Your task to perform on an android device: clear history in the chrome app Image 0: 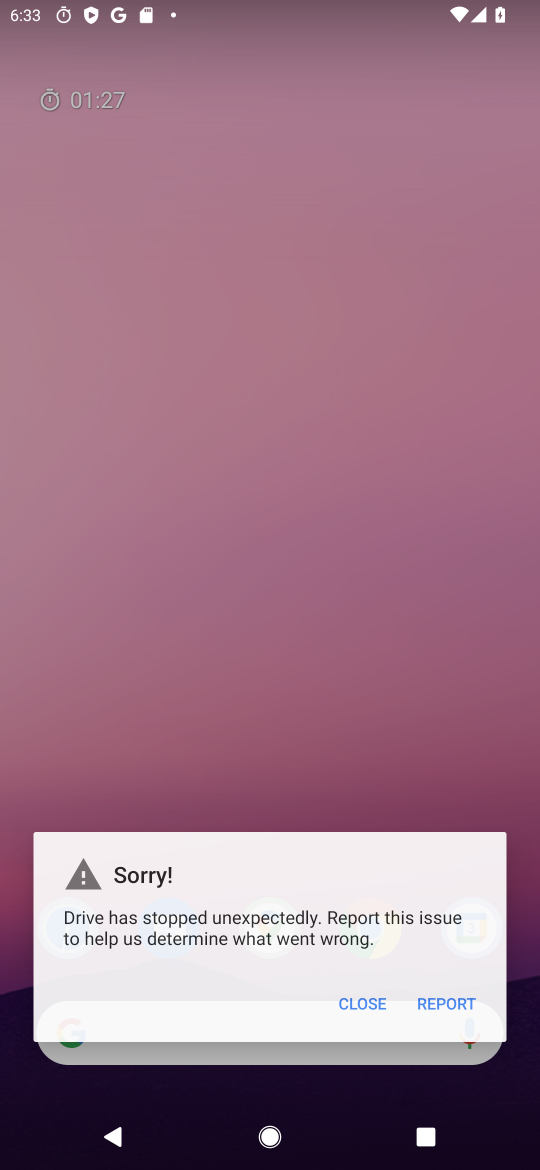
Step 0: press home button
Your task to perform on an android device: clear history in the chrome app Image 1: 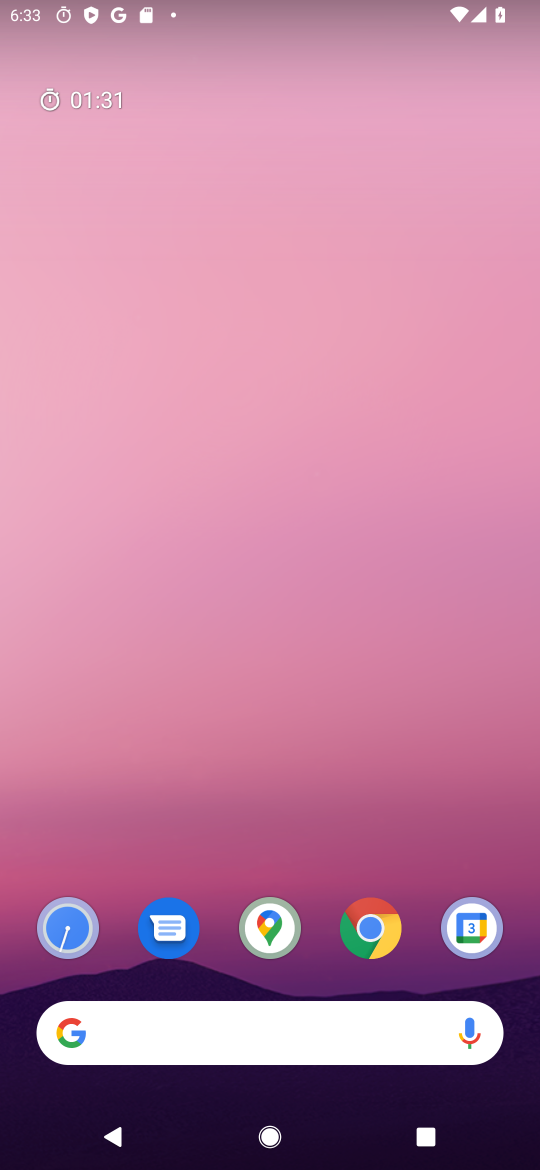
Step 1: drag from (318, 841) to (350, 212)
Your task to perform on an android device: clear history in the chrome app Image 2: 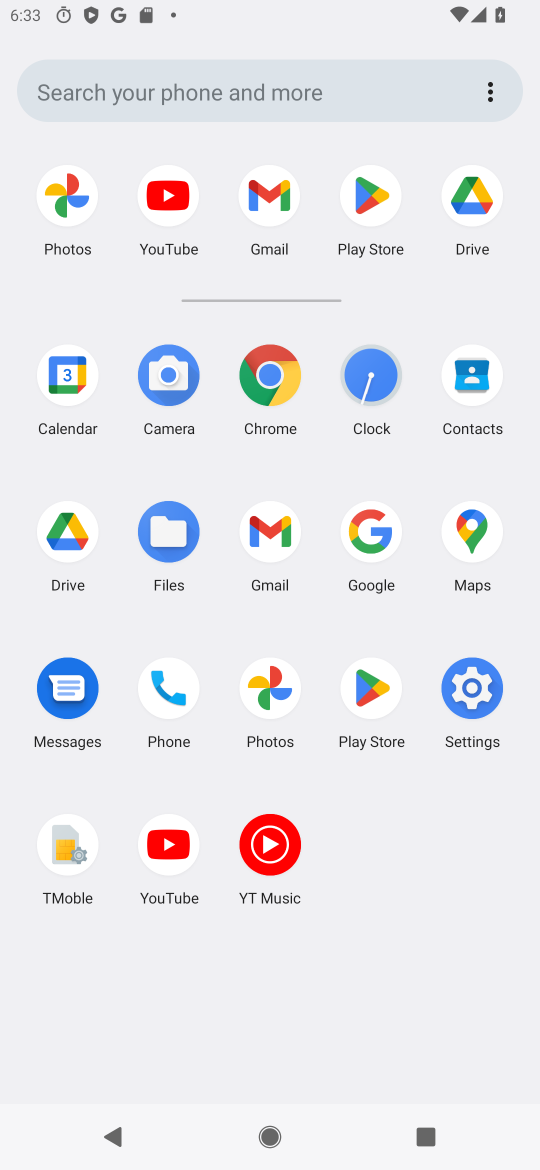
Step 2: click (272, 368)
Your task to perform on an android device: clear history in the chrome app Image 3: 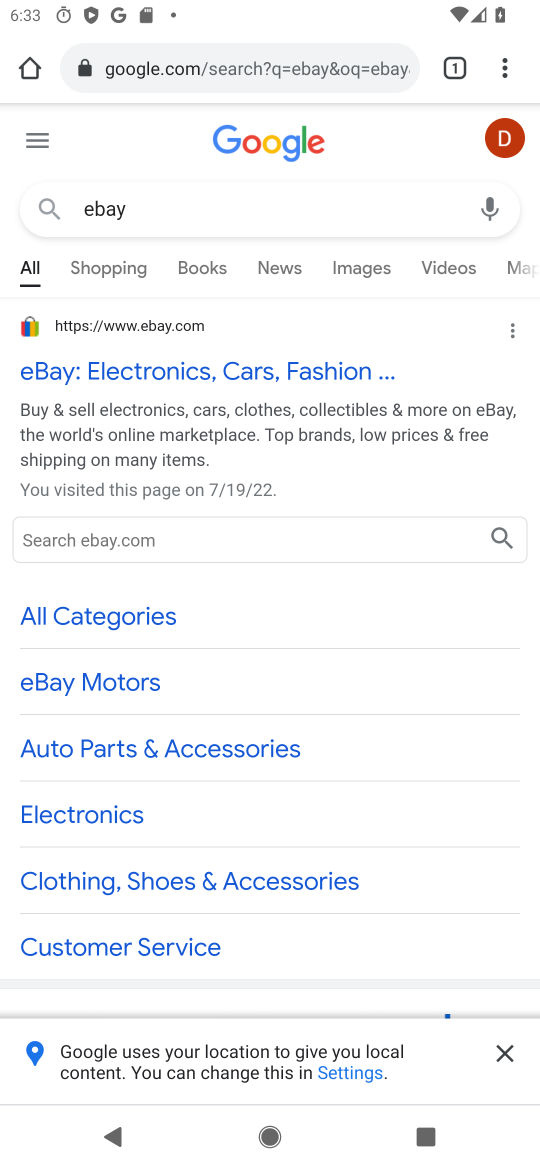
Step 3: click (506, 72)
Your task to perform on an android device: clear history in the chrome app Image 4: 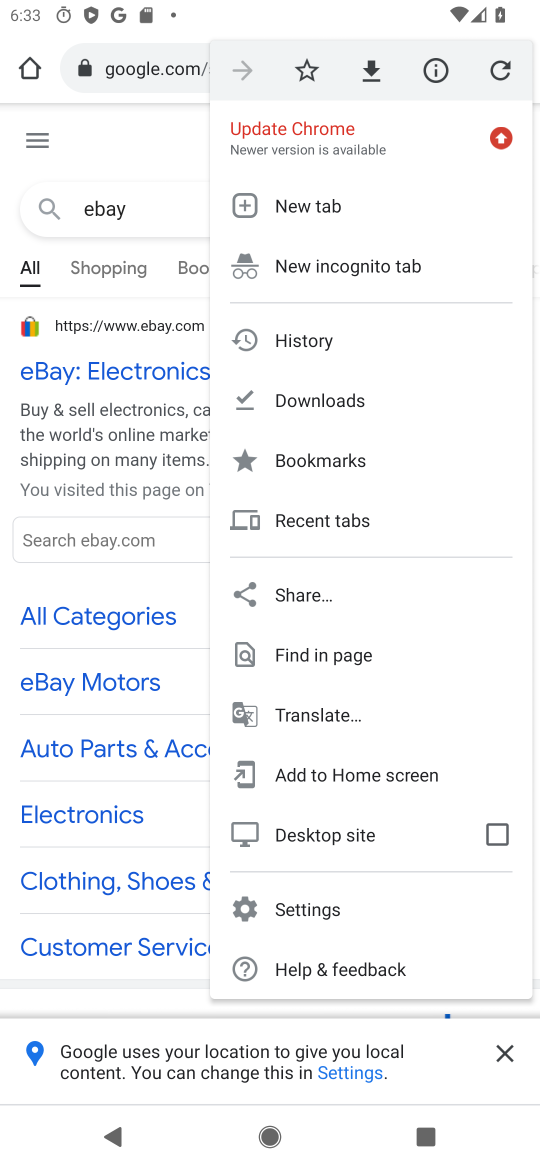
Step 4: click (339, 339)
Your task to perform on an android device: clear history in the chrome app Image 5: 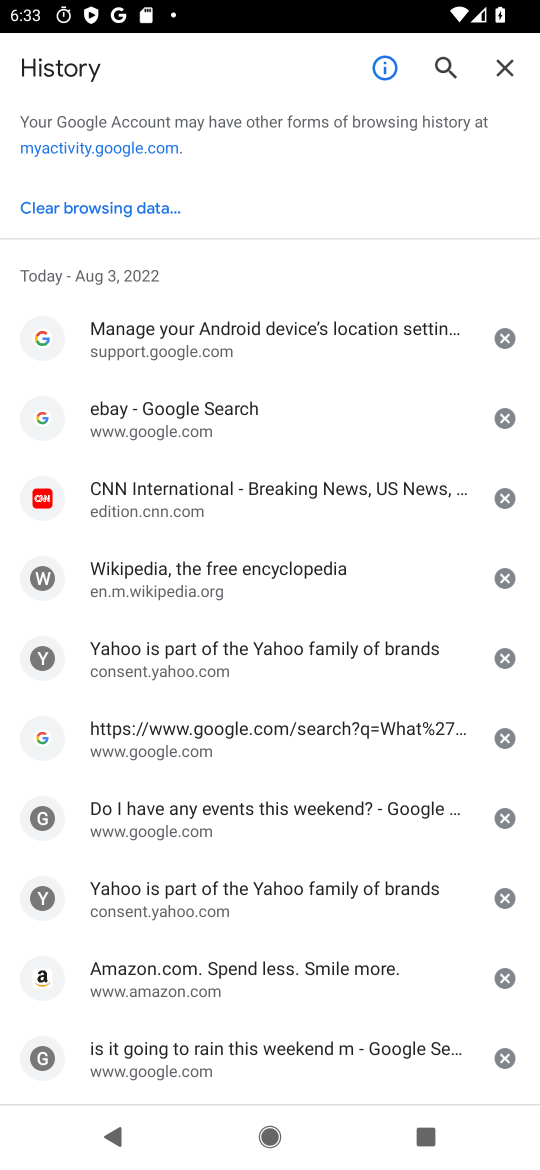
Step 5: click (131, 209)
Your task to perform on an android device: clear history in the chrome app Image 6: 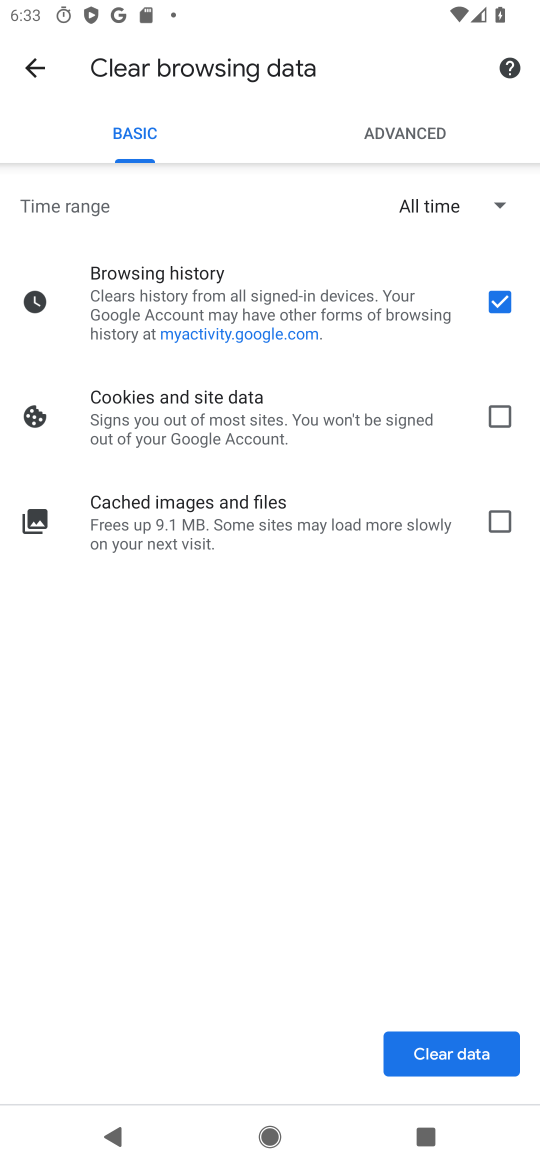
Step 6: click (497, 513)
Your task to perform on an android device: clear history in the chrome app Image 7: 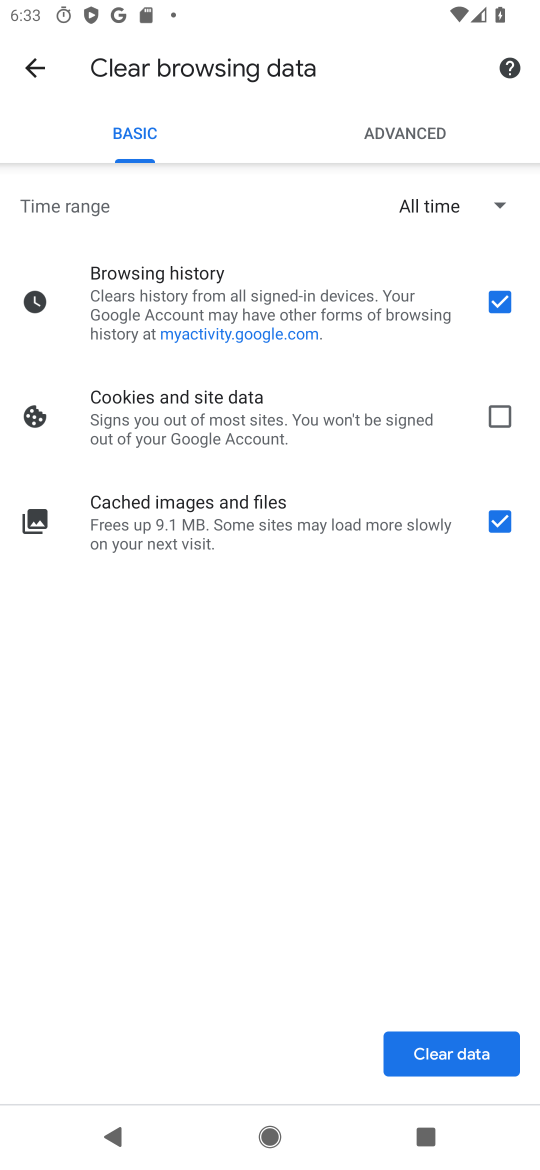
Step 7: click (501, 415)
Your task to perform on an android device: clear history in the chrome app Image 8: 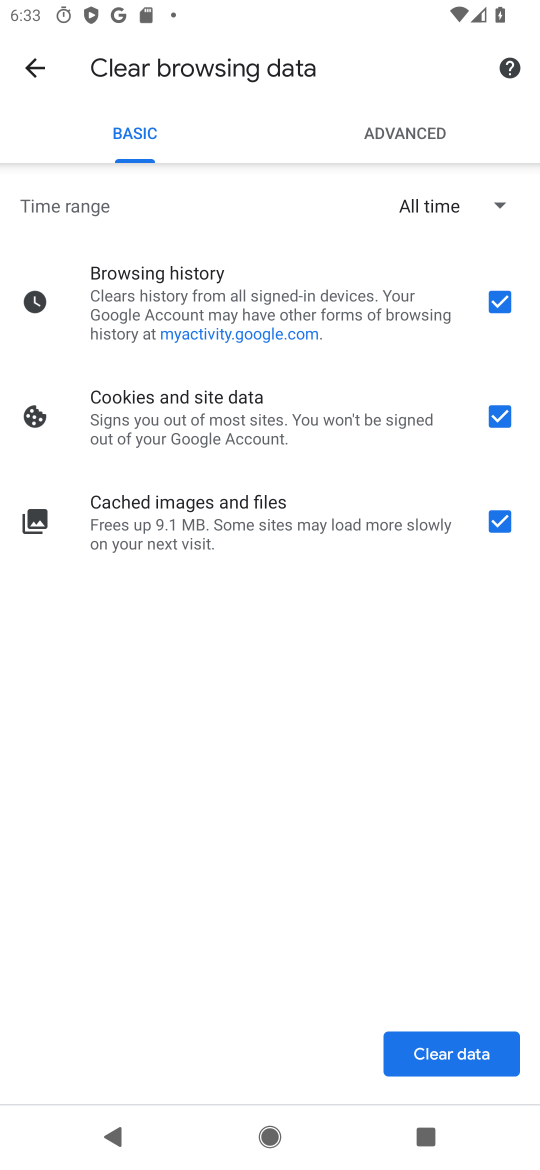
Step 8: click (459, 1044)
Your task to perform on an android device: clear history in the chrome app Image 9: 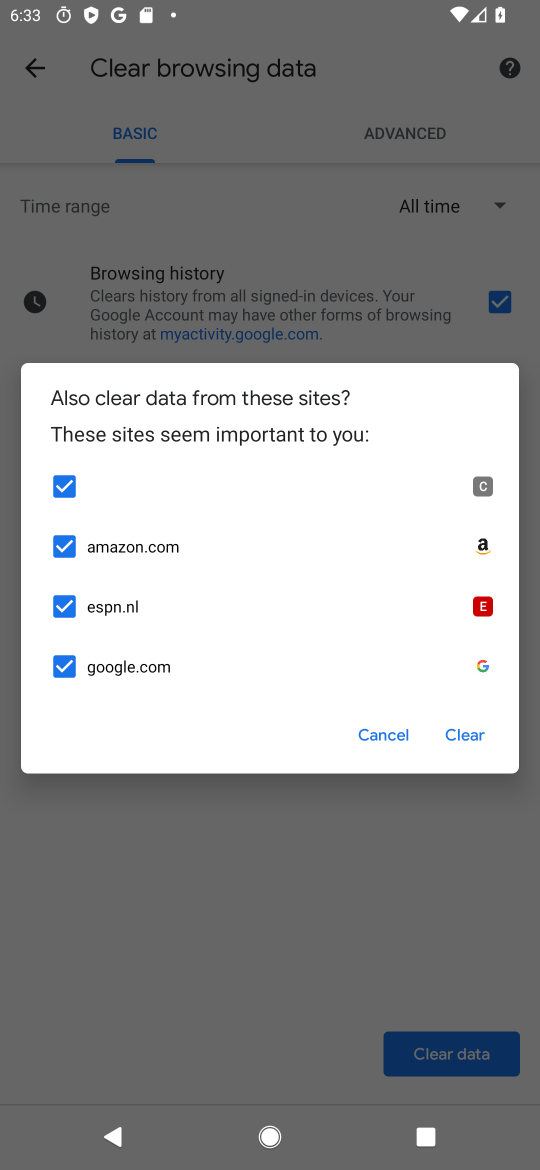
Step 9: click (472, 734)
Your task to perform on an android device: clear history in the chrome app Image 10: 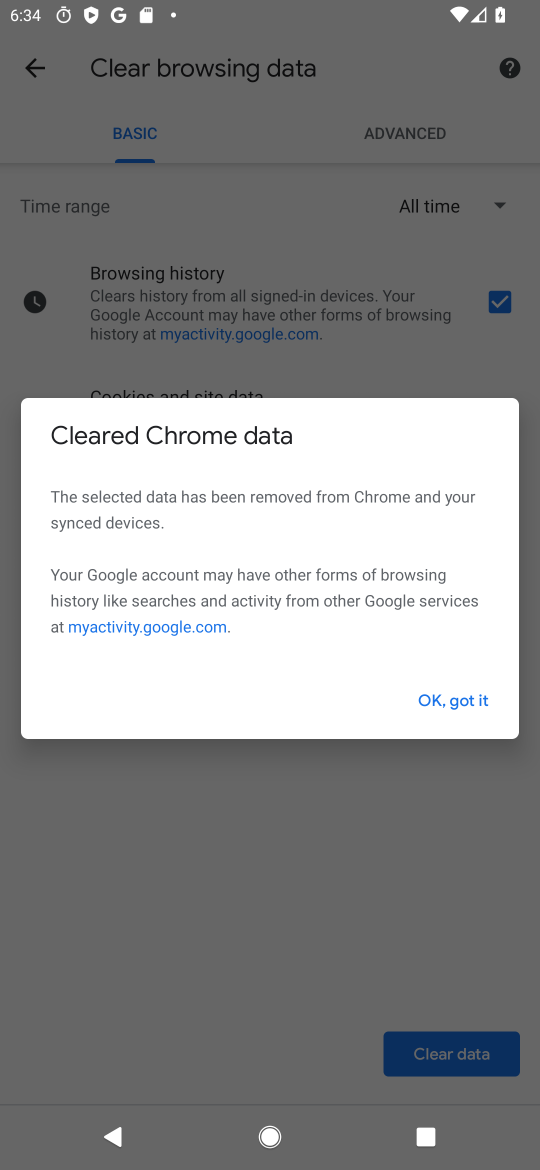
Step 10: click (475, 691)
Your task to perform on an android device: clear history in the chrome app Image 11: 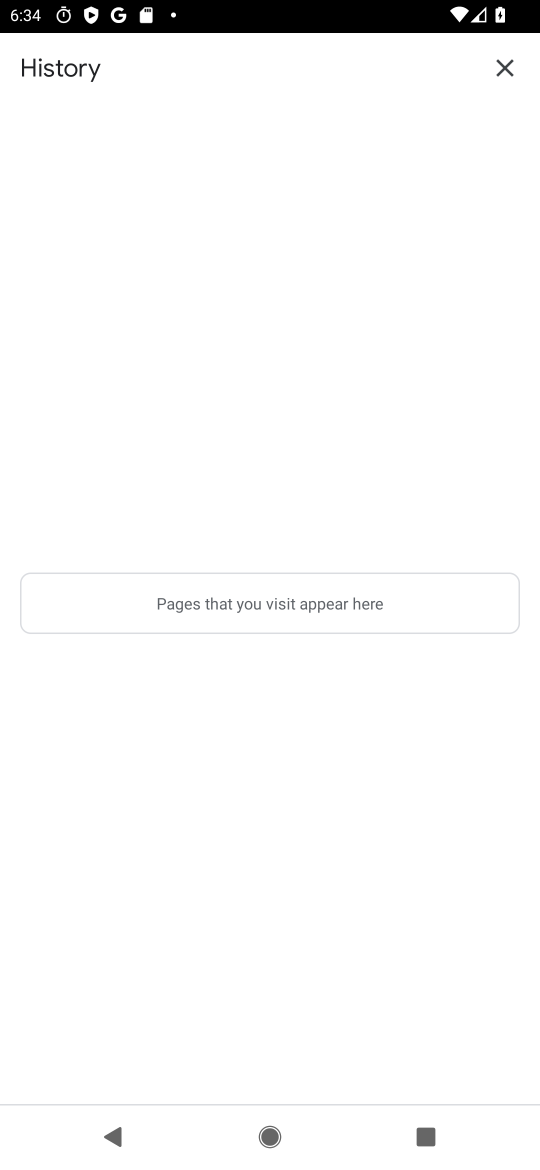
Step 11: task complete